Your task to perform on an android device: change the clock display to analog Image 0: 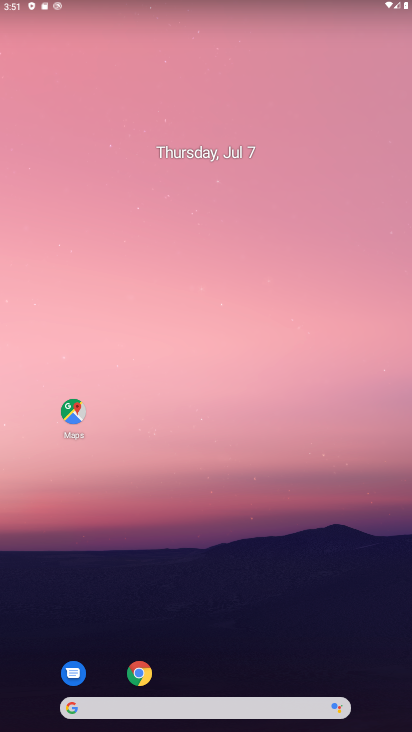
Step 0: drag from (232, 489) to (245, 24)
Your task to perform on an android device: change the clock display to analog Image 1: 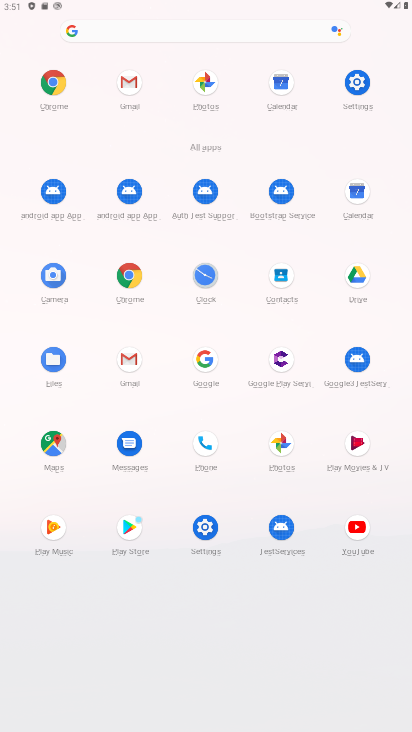
Step 1: drag from (239, 609) to (261, 26)
Your task to perform on an android device: change the clock display to analog Image 2: 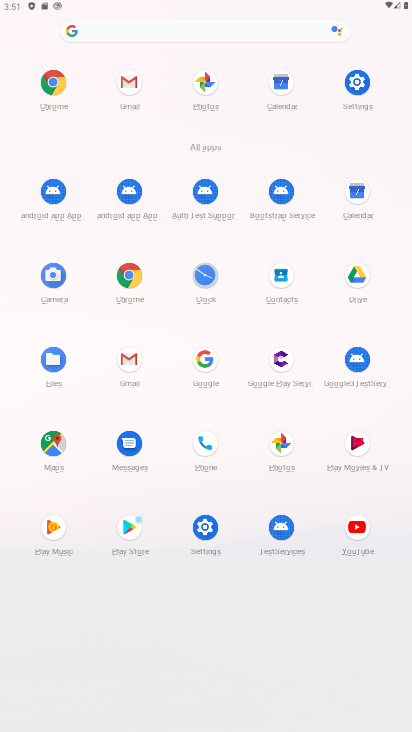
Step 2: click (201, 267)
Your task to perform on an android device: change the clock display to analog Image 3: 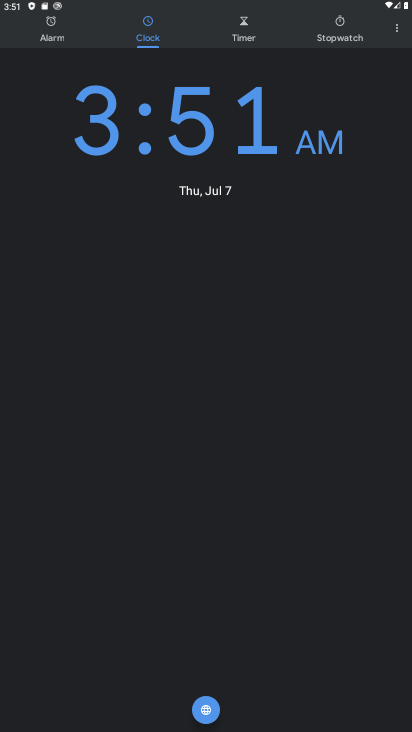
Step 3: click (393, 32)
Your task to perform on an android device: change the clock display to analog Image 4: 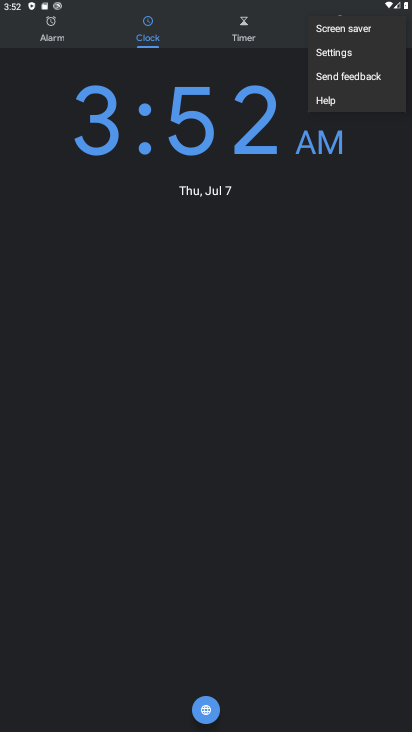
Step 4: click (356, 58)
Your task to perform on an android device: change the clock display to analog Image 5: 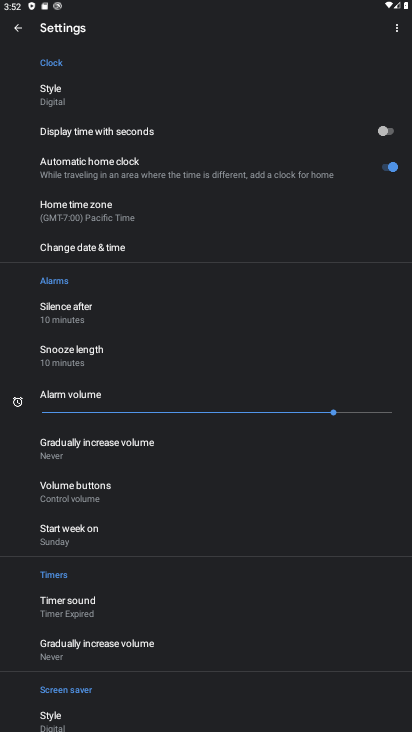
Step 5: click (79, 97)
Your task to perform on an android device: change the clock display to analog Image 6: 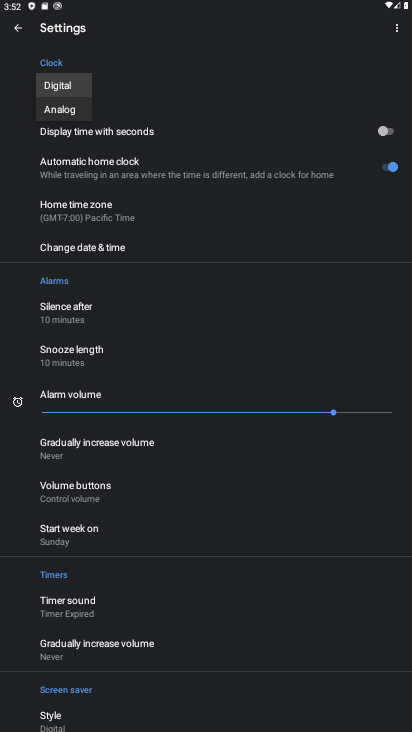
Step 6: click (72, 112)
Your task to perform on an android device: change the clock display to analog Image 7: 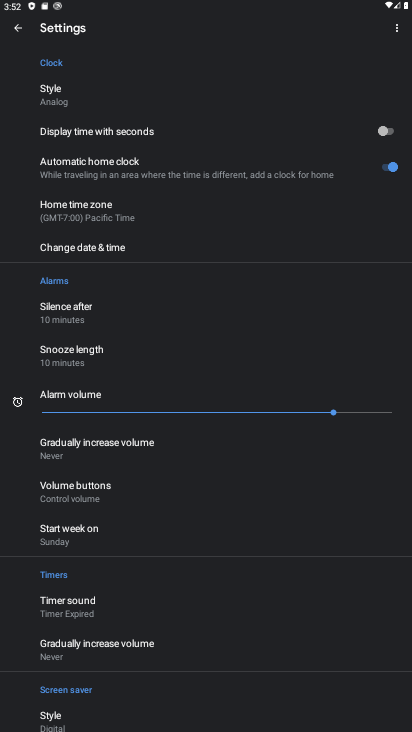
Step 7: task complete